Your task to perform on an android device: turn off notifications settings in the gmail app Image 0: 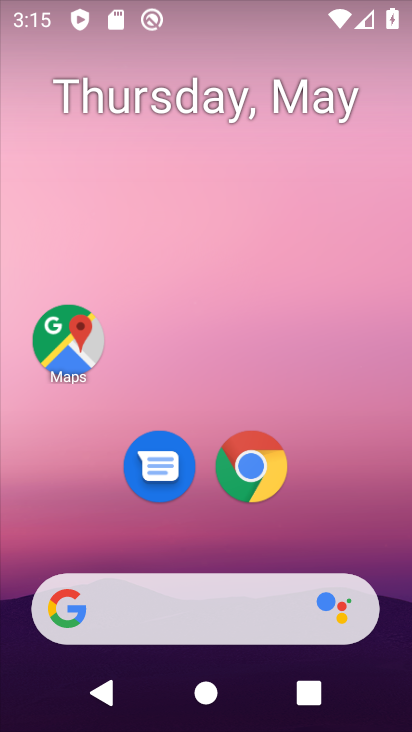
Step 0: drag from (125, 561) to (246, 50)
Your task to perform on an android device: turn off notifications settings in the gmail app Image 1: 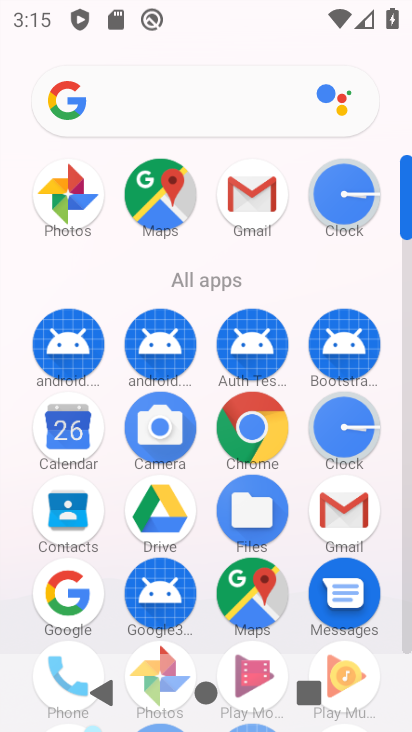
Step 1: click (338, 503)
Your task to perform on an android device: turn off notifications settings in the gmail app Image 2: 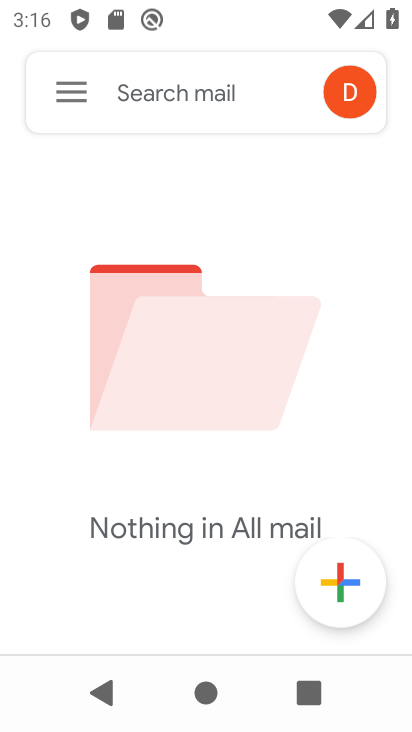
Step 2: click (50, 85)
Your task to perform on an android device: turn off notifications settings in the gmail app Image 3: 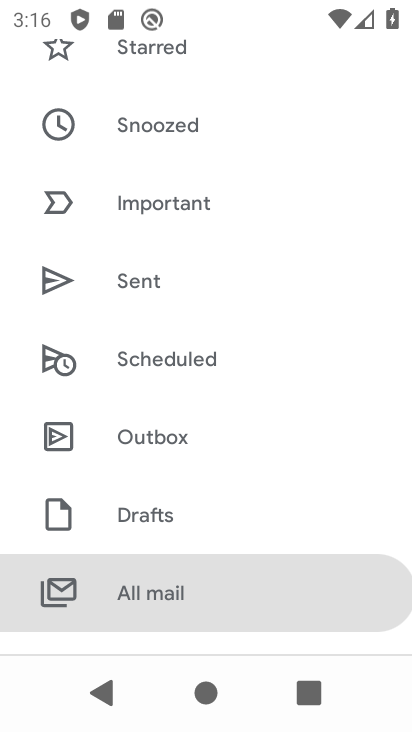
Step 3: drag from (168, 560) to (332, 156)
Your task to perform on an android device: turn off notifications settings in the gmail app Image 4: 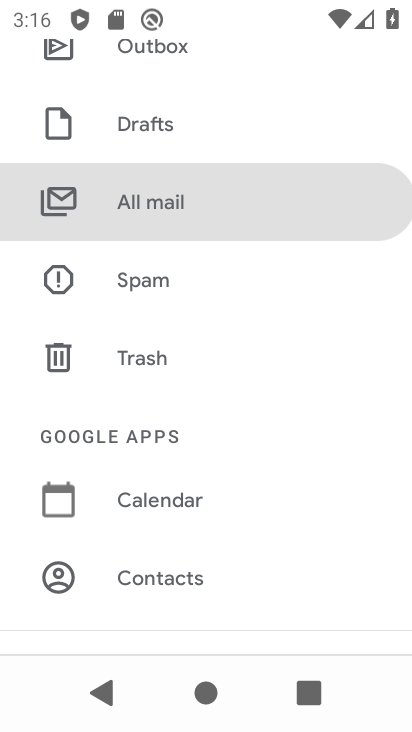
Step 4: drag from (248, 578) to (412, 91)
Your task to perform on an android device: turn off notifications settings in the gmail app Image 5: 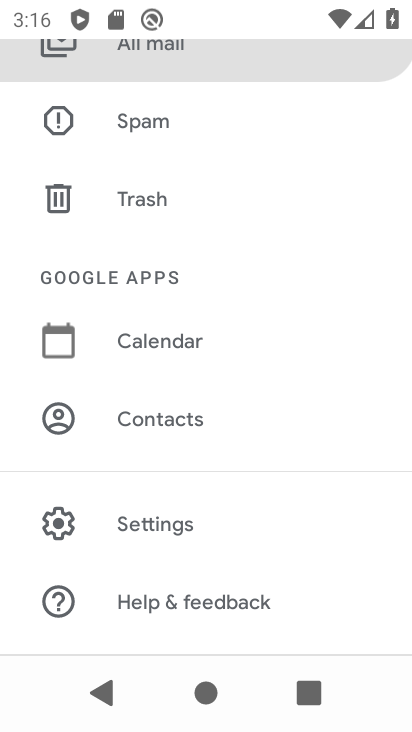
Step 5: click (203, 528)
Your task to perform on an android device: turn off notifications settings in the gmail app Image 6: 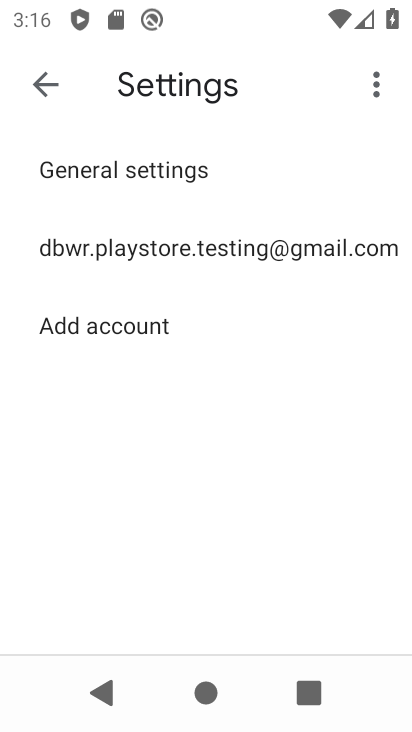
Step 6: click (264, 245)
Your task to perform on an android device: turn off notifications settings in the gmail app Image 7: 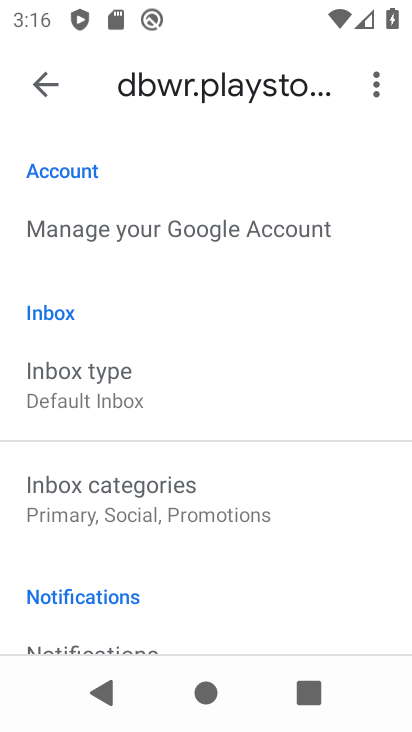
Step 7: drag from (163, 625) to (338, 170)
Your task to perform on an android device: turn off notifications settings in the gmail app Image 8: 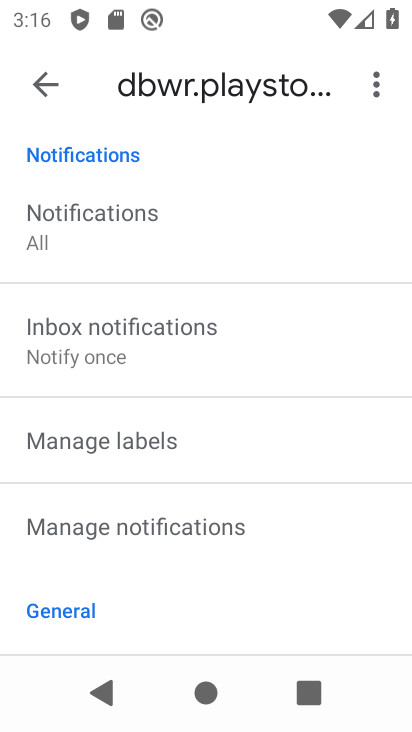
Step 8: click (162, 540)
Your task to perform on an android device: turn off notifications settings in the gmail app Image 9: 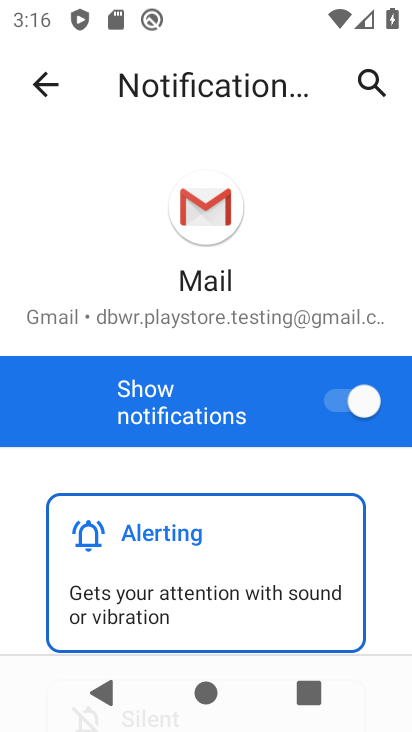
Step 9: click (358, 406)
Your task to perform on an android device: turn off notifications settings in the gmail app Image 10: 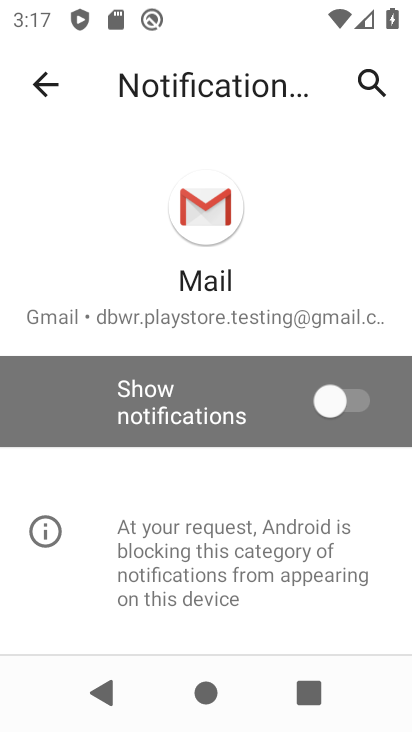
Step 10: task complete